Your task to perform on an android device: Go to battery settings Image 0: 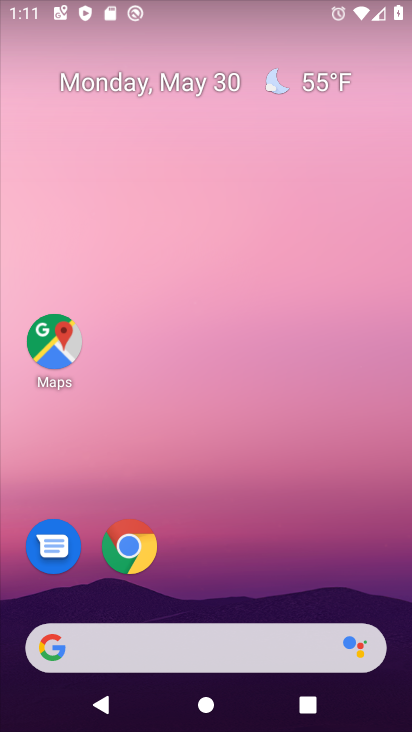
Step 0: press home button
Your task to perform on an android device: Go to battery settings Image 1: 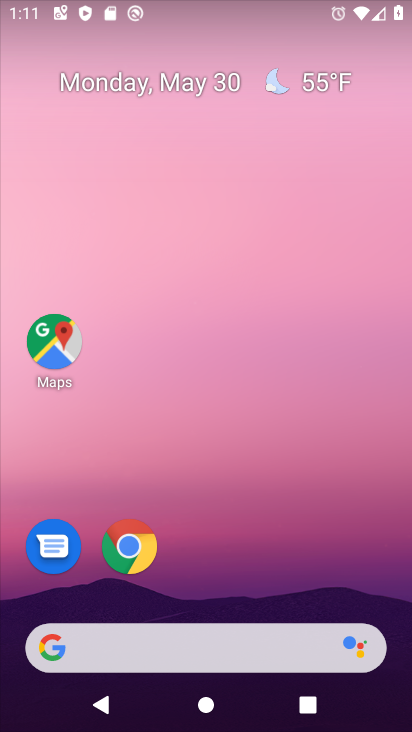
Step 1: drag from (317, 566) to (317, 181)
Your task to perform on an android device: Go to battery settings Image 2: 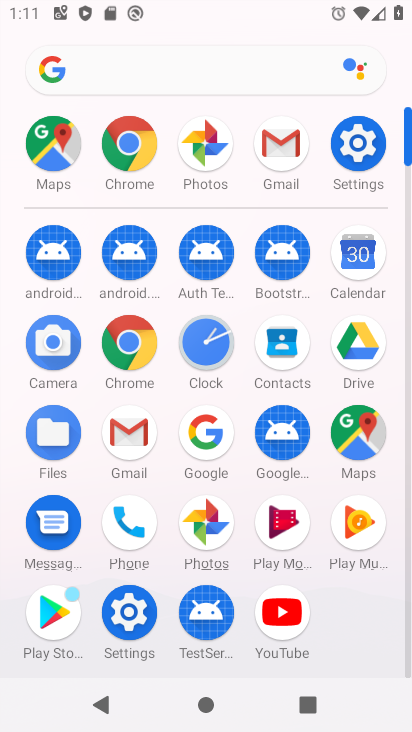
Step 2: click (362, 159)
Your task to perform on an android device: Go to battery settings Image 3: 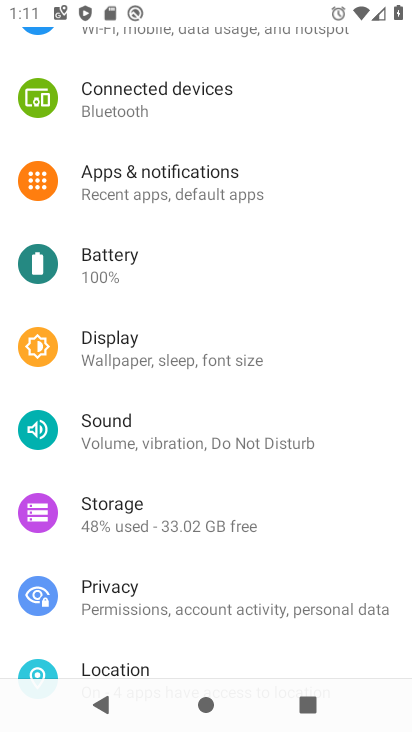
Step 3: click (102, 249)
Your task to perform on an android device: Go to battery settings Image 4: 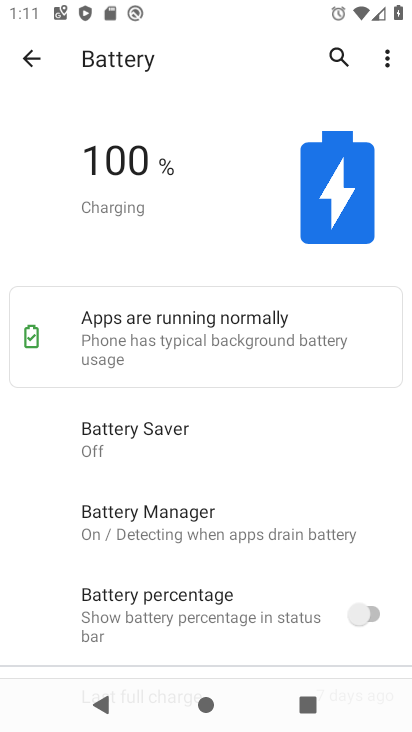
Step 4: task complete